Your task to perform on an android device: turn on priority inbox in the gmail app Image 0: 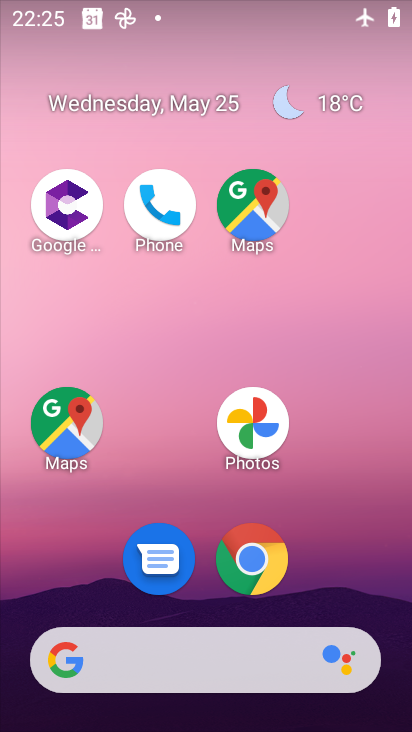
Step 0: drag from (342, 581) to (256, 91)
Your task to perform on an android device: turn on priority inbox in the gmail app Image 1: 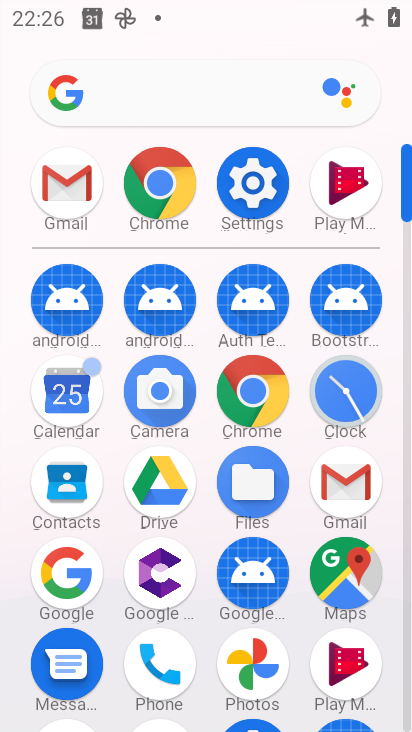
Step 1: click (71, 178)
Your task to perform on an android device: turn on priority inbox in the gmail app Image 2: 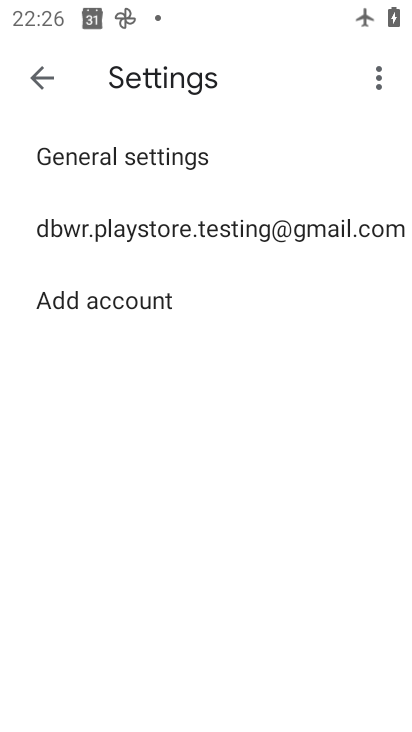
Step 2: click (194, 228)
Your task to perform on an android device: turn on priority inbox in the gmail app Image 3: 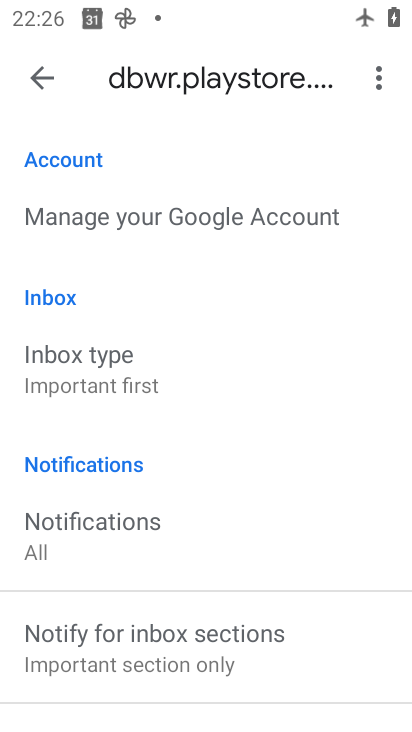
Step 3: click (80, 377)
Your task to perform on an android device: turn on priority inbox in the gmail app Image 4: 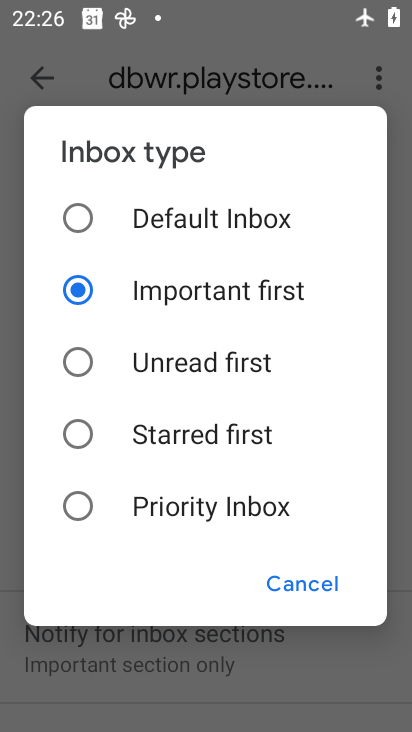
Step 4: click (73, 499)
Your task to perform on an android device: turn on priority inbox in the gmail app Image 5: 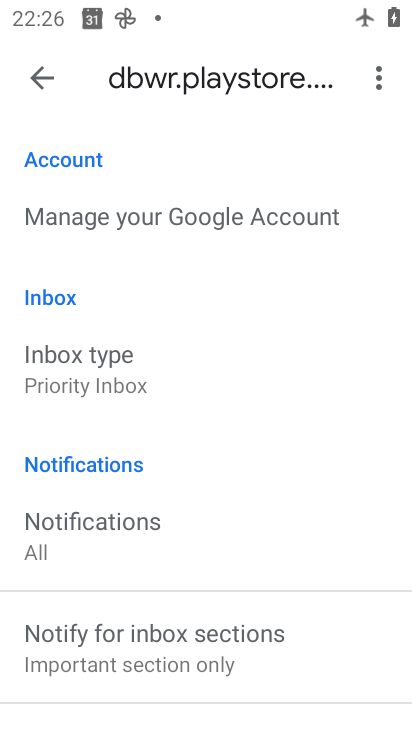
Step 5: task complete